Your task to perform on an android device: turn pop-ups on in chrome Image 0: 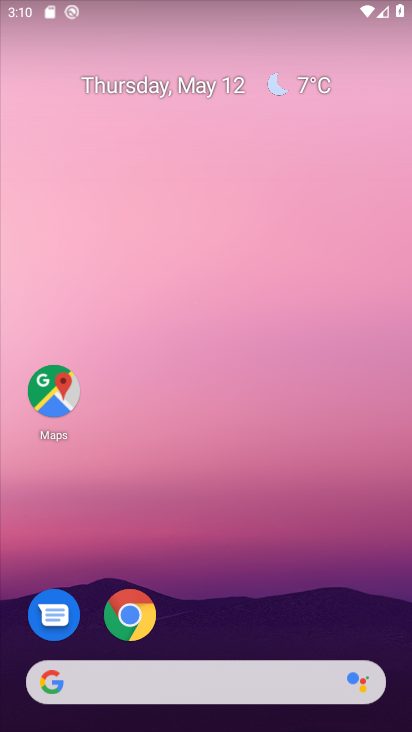
Step 0: click (132, 613)
Your task to perform on an android device: turn pop-ups on in chrome Image 1: 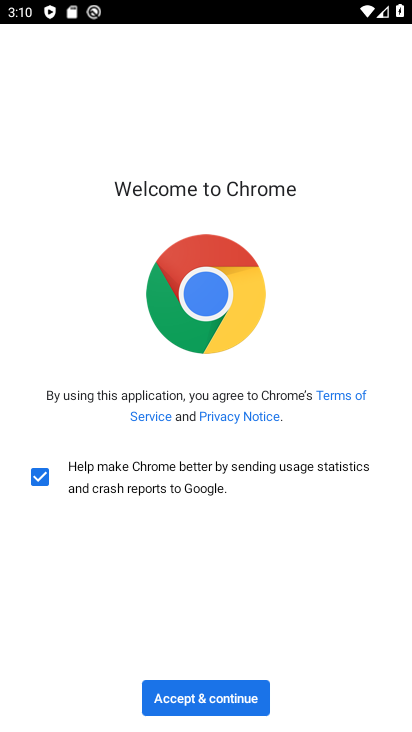
Step 1: click (208, 699)
Your task to perform on an android device: turn pop-ups on in chrome Image 2: 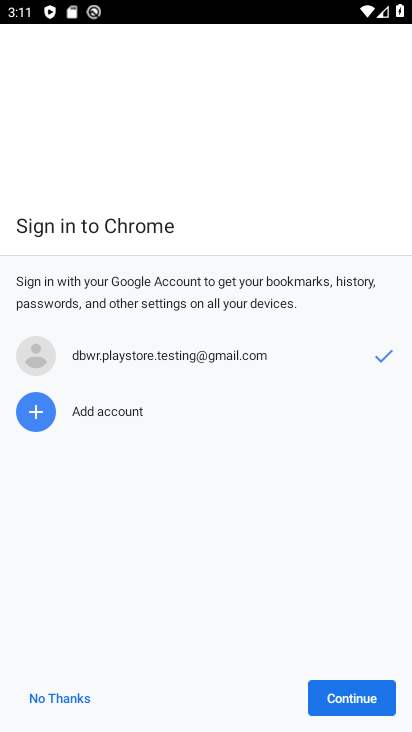
Step 2: click (342, 691)
Your task to perform on an android device: turn pop-ups on in chrome Image 3: 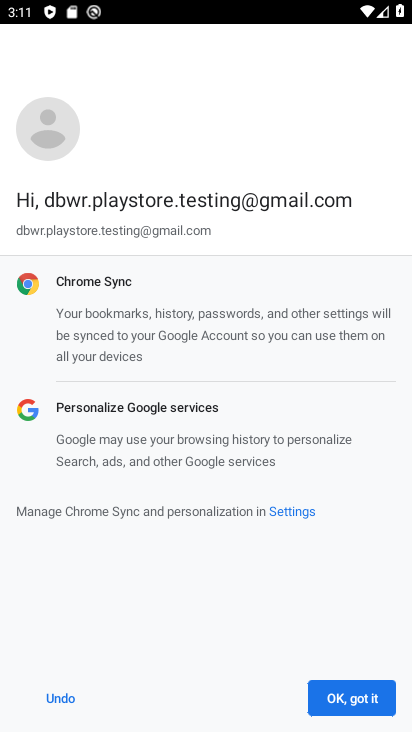
Step 3: click (343, 696)
Your task to perform on an android device: turn pop-ups on in chrome Image 4: 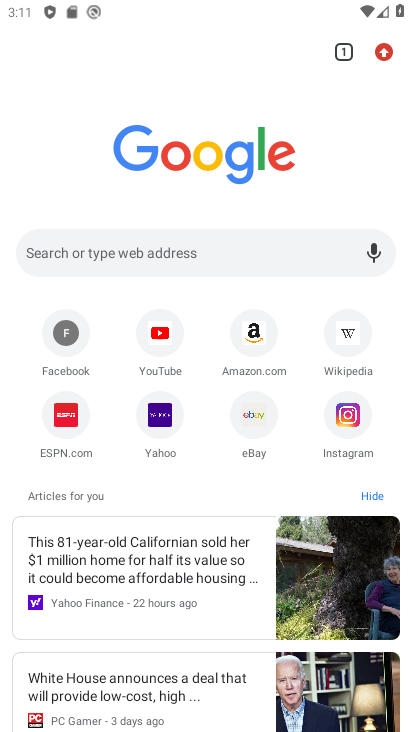
Step 4: click (390, 55)
Your task to perform on an android device: turn pop-ups on in chrome Image 5: 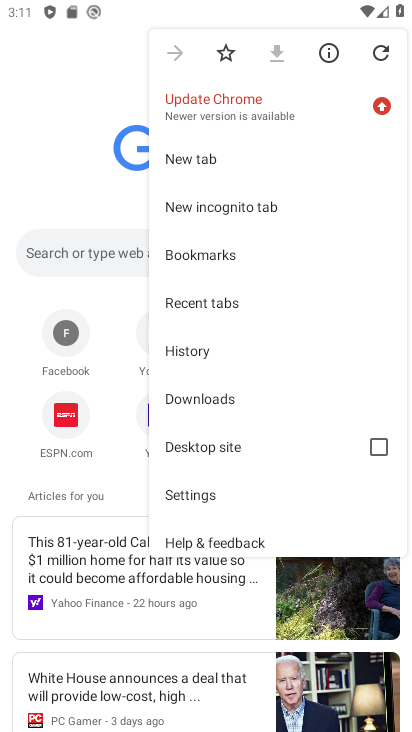
Step 5: click (225, 499)
Your task to perform on an android device: turn pop-ups on in chrome Image 6: 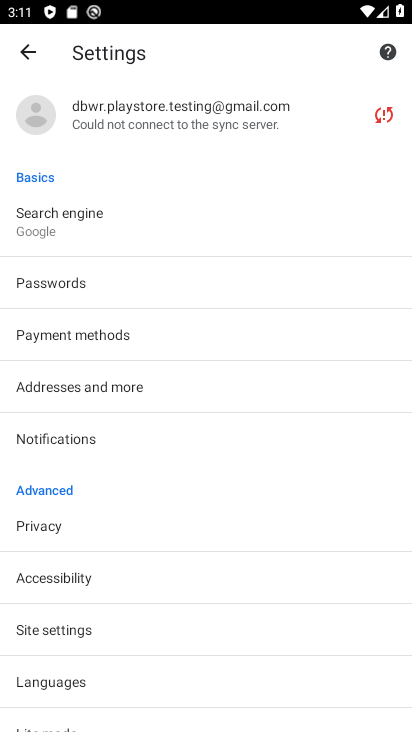
Step 6: drag from (211, 626) to (191, 497)
Your task to perform on an android device: turn pop-ups on in chrome Image 7: 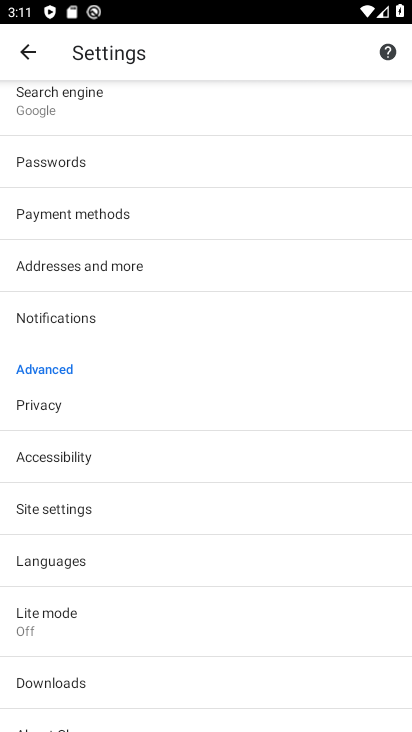
Step 7: click (91, 499)
Your task to perform on an android device: turn pop-ups on in chrome Image 8: 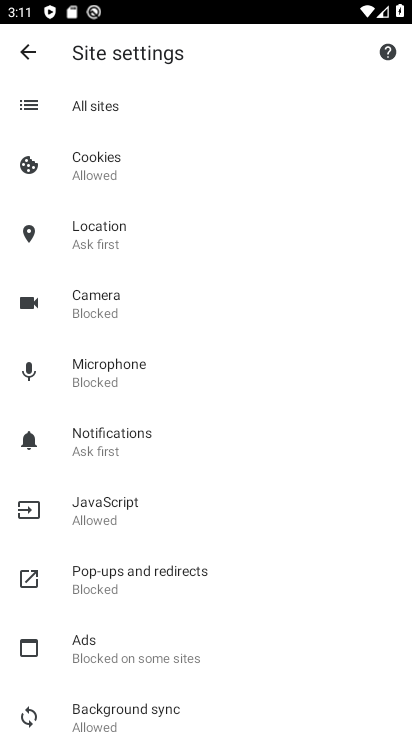
Step 8: click (146, 562)
Your task to perform on an android device: turn pop-ups on in chrome Image 9: 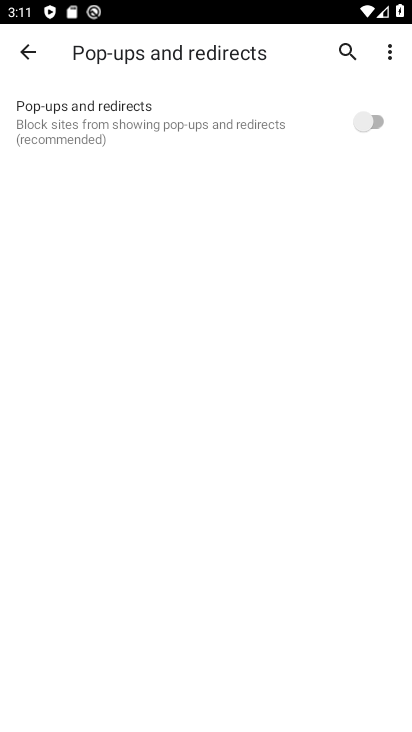
Step 9: click (365, 111)
Your task to perform on an android device: turn pop-ups on in chrome Image 10: 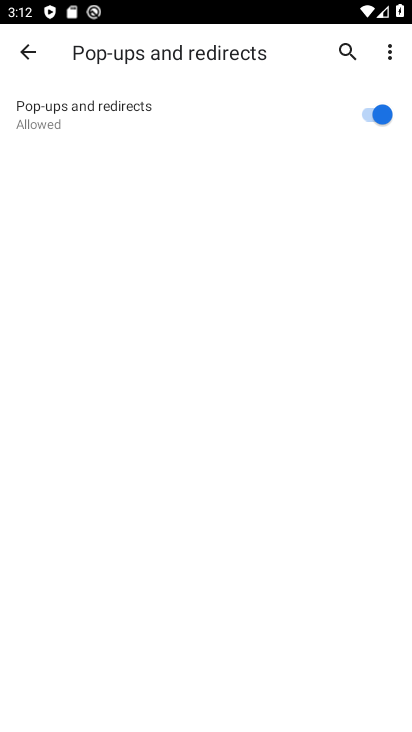
Step 10: task complete